Your task to perform on an android device: open device folders in google photos Image 0: 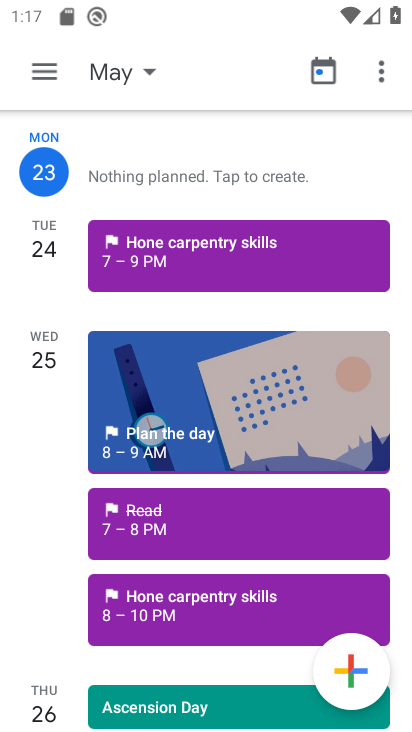
Step 0: press home button
Your task to perform on an android device: open device folders in google photos Image 1: 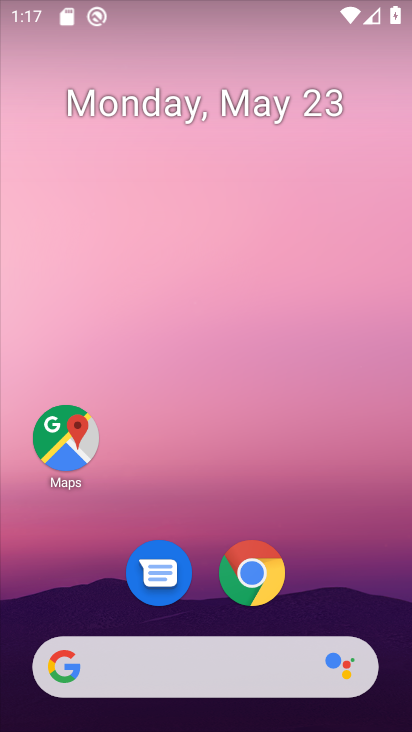
Step 1: drag from (362, 600) to (323, 69)
Your task to perform on an android device: open device folders in google photos Image 2: 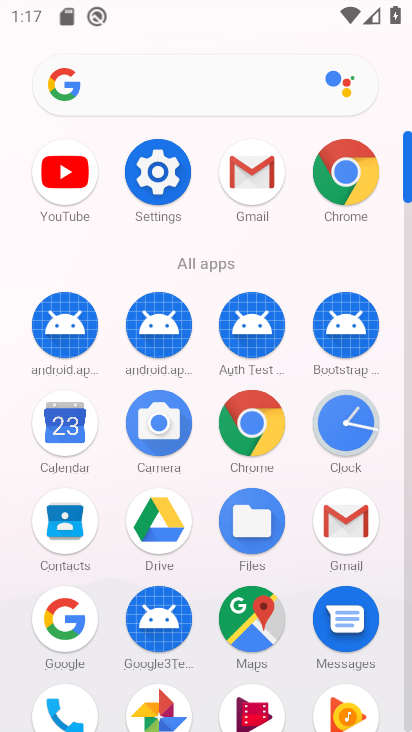
Step 2: click (162, 701)
Your task to perform on an android device: open device folders in google photos Image 3: 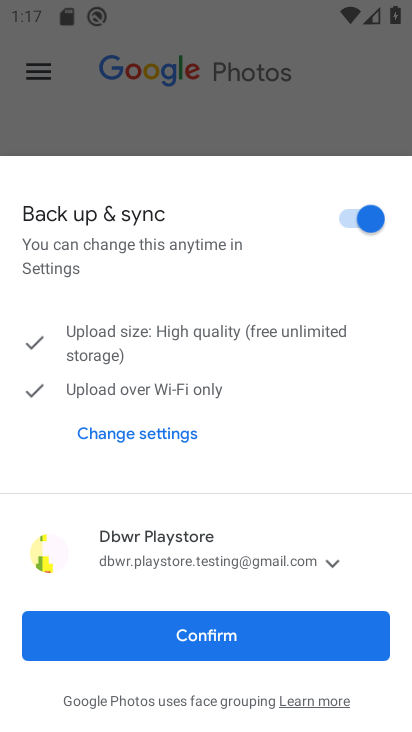
Step 3: click (239, 628)
Your task to perform on an android device: open device folders in google photos Image 4: 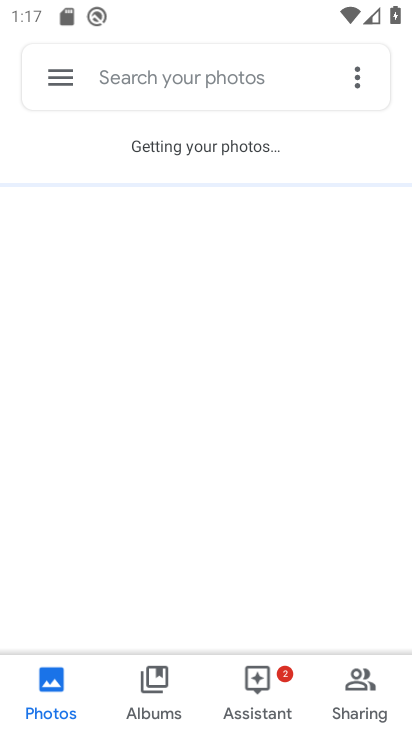
Step 4: click (60, 76)
Your task to perform on an android device: open device folders in google photos Image 5: 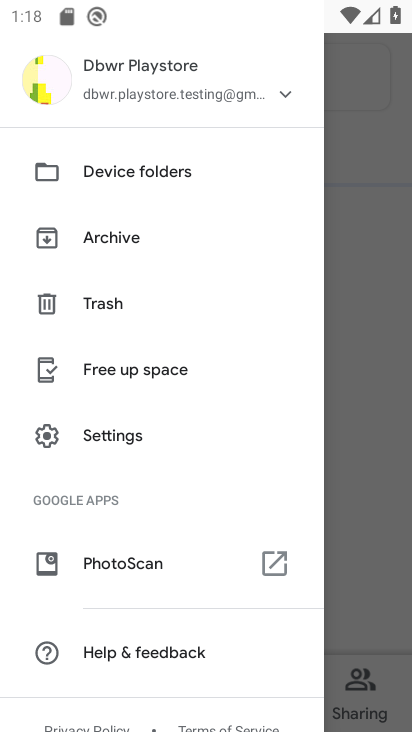
Step 5: click (114, 165)
Your task to perform on an android device: open device folders in google photos Image 6: 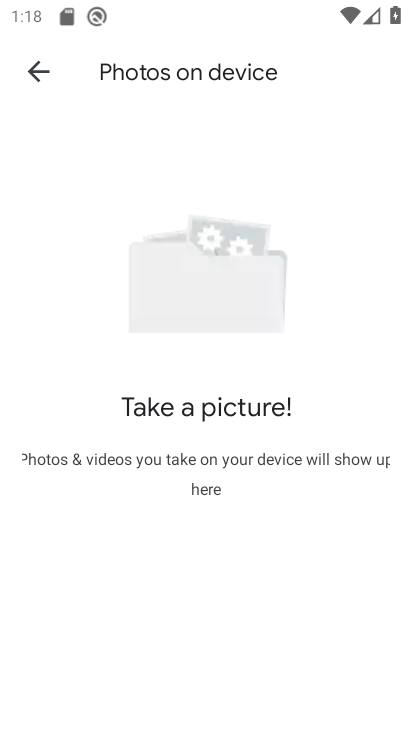
Step 6: task complete